Your task to perform on an android device: toggle javascript in the chrome app Image 0: 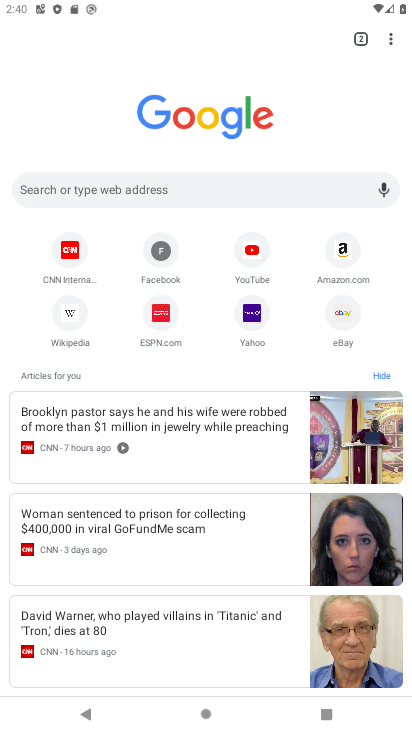
Step 0: click (388, 34)
Your task to perform on an android device: toggle javascript in the chrome app Image 1: 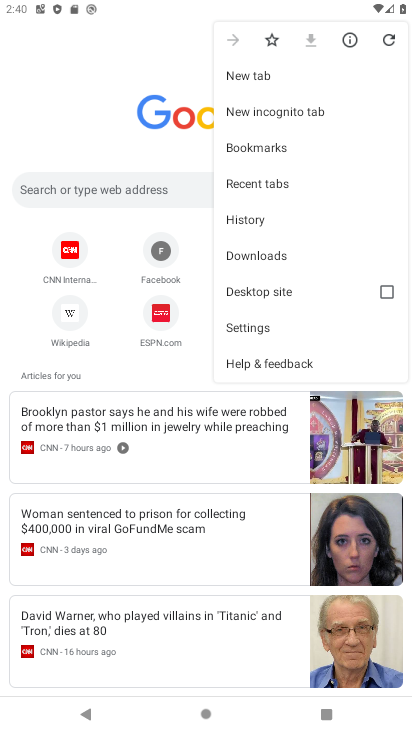
Step 1: click (254, 330)
Your task to perform on an android device: toggle javascript in the chrome app Image 2: 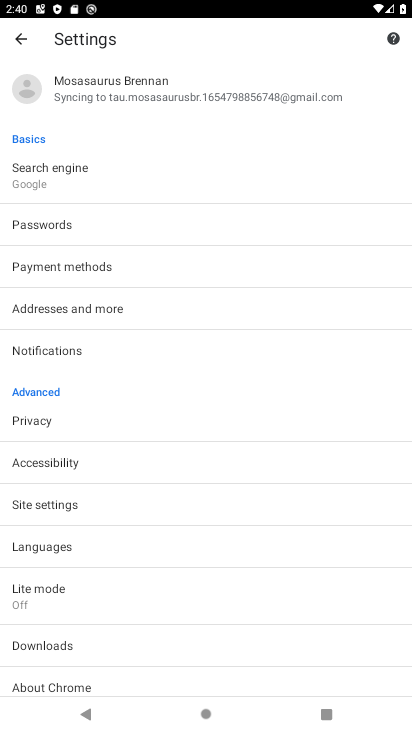
Step 2: task complete